Your task to perform on an android device: turn off picture-in-picture Image 0: 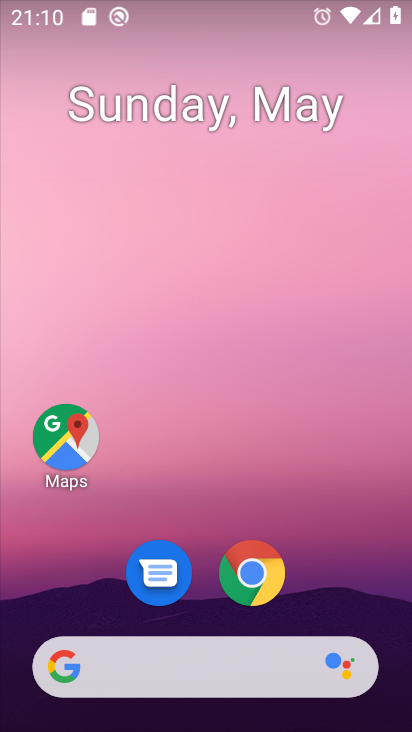
Step 0: click (260, 583)
Your task to perform on an android device: turn off picture-in-picture Image 1: 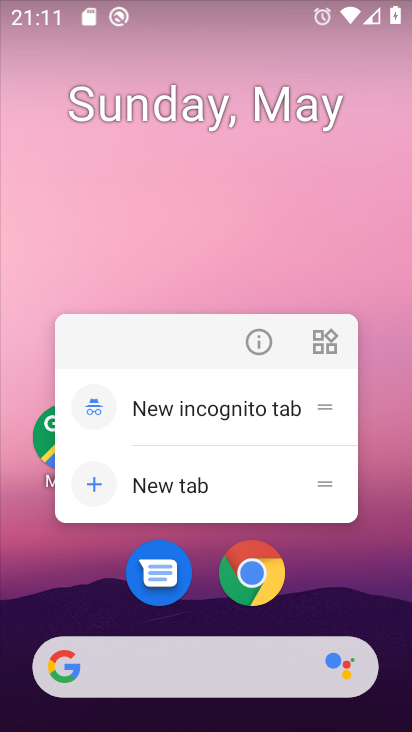
Step 1: click (256, 343)
Your task to perform on an android device: turn off picture-in-picture Image 2: 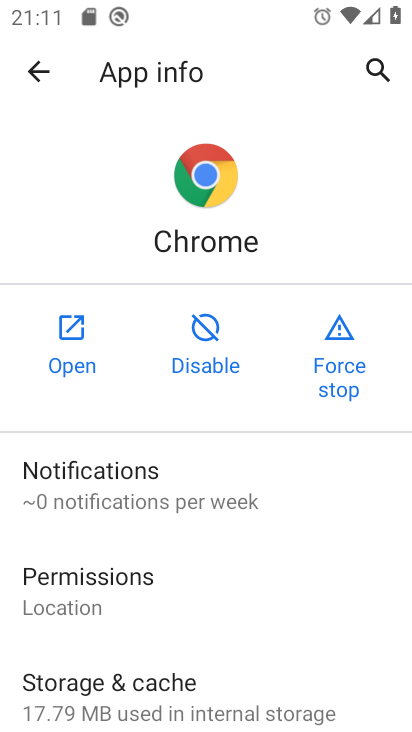
Step 2: drag from (218, 558) to (238, 67)
Your task to perform on an android device: turn off picture-in-picture Image 3: 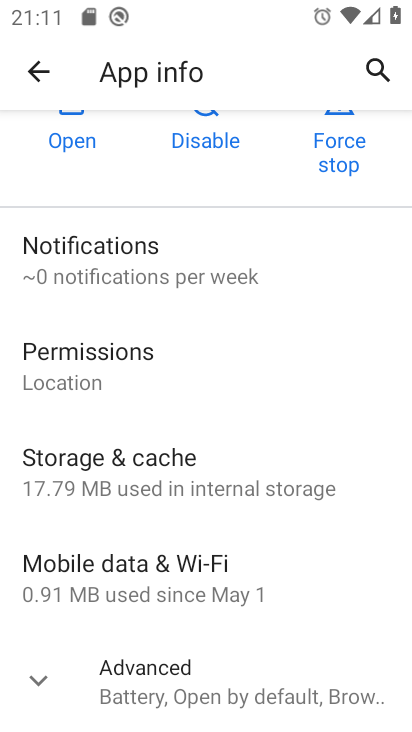
Step 3: click (37, 676)
Your task to perform on an android device: turn off picture-in-picture Image 4: 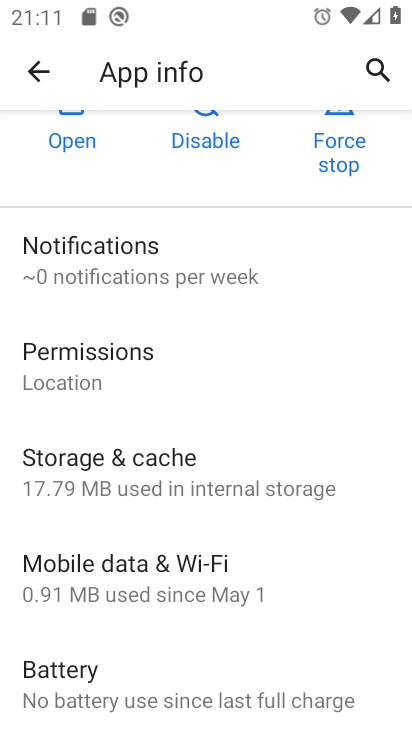
Step 4: drag from (194, 599) to (260, 25)
Your task to perform on an android device: turn off picture-in-picture Image 5: 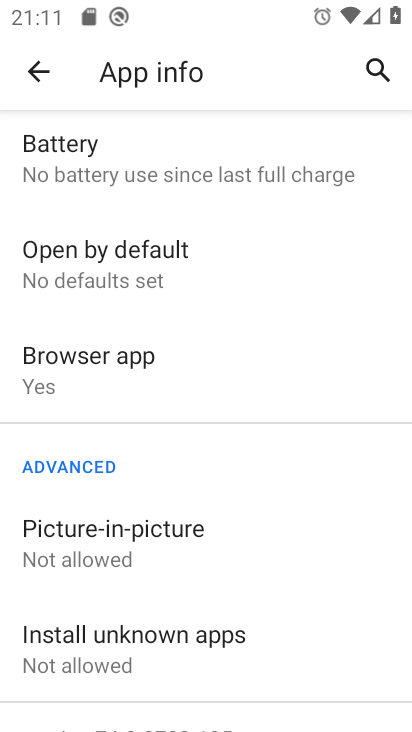
Step 5: click (160, 560)
Your task to perform on an android device: turn off picture-in-picture Image 6: 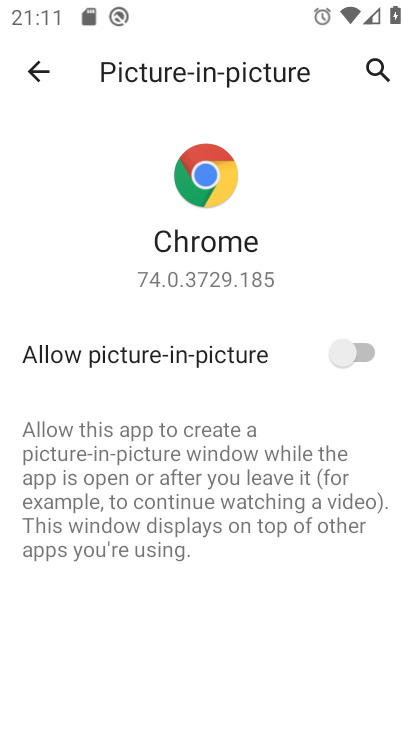
Step 6: task complete